Your task to perform on an android device: Find coffee shops on Maps Image 0: 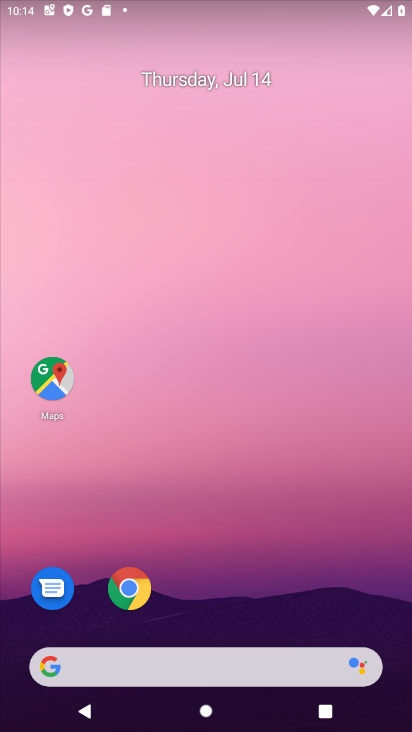
Step 0: click (60, 385)
Your task to perform on an android device: Find coffee shops on Maps Image 1: 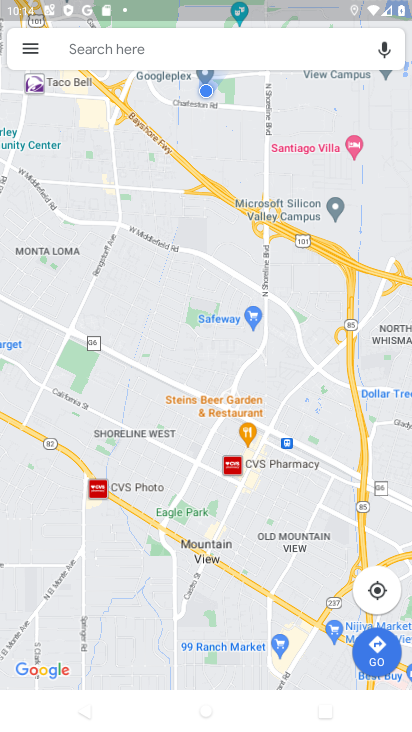
Step 1: click (187, 51)
Your task to perform on an android device: Find coffee shops on Maps Image 2: 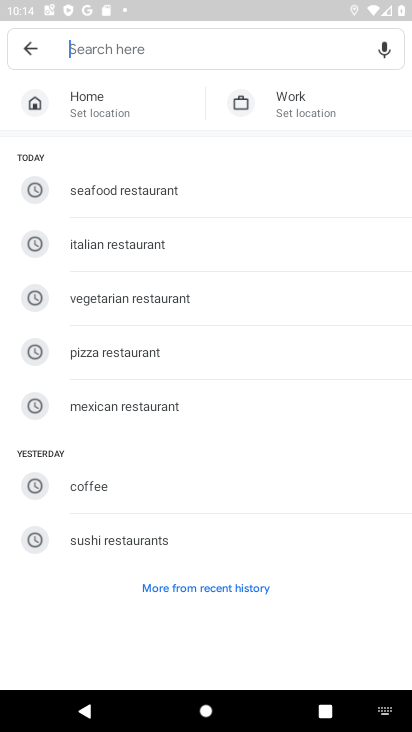
Step 2: click (104, 491)
Your task to perform on an android device: Find coffee shops on Maps Image 3: 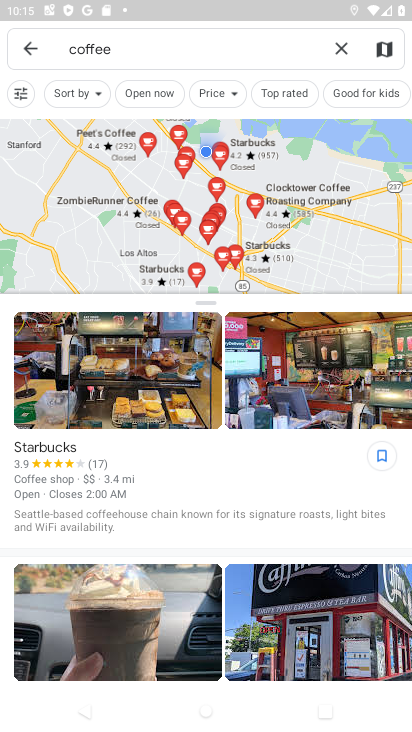
Step 3: task complete